Your task to perform on an android device: turn off javascript in the chrome app Image 0: 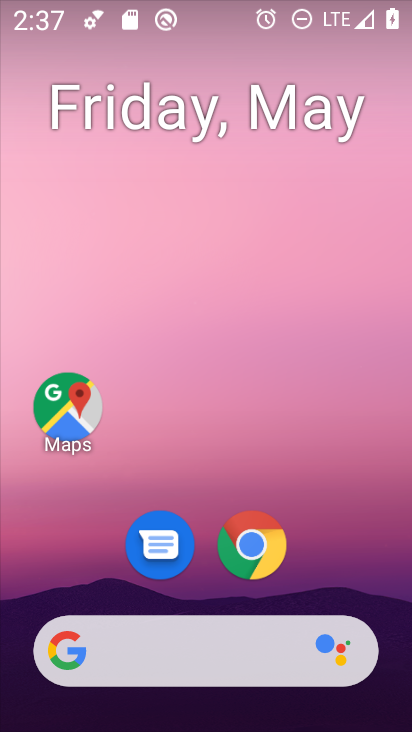
Step 0: drag from (362, 564) to (304, 277)
Your task to perform on an android device: turn off javascript in the chrome app Image 1: 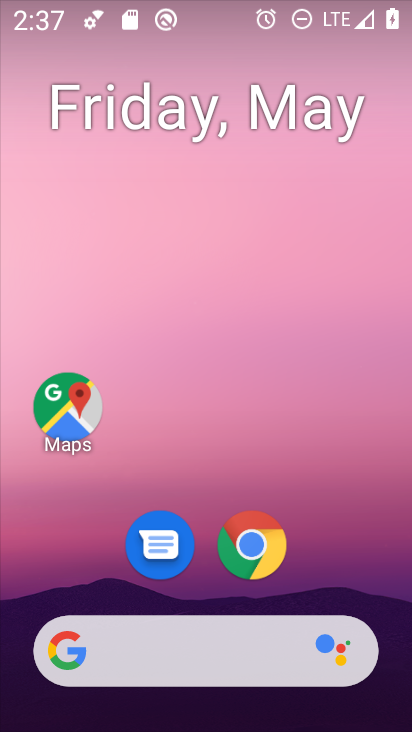
Step 1: click (246, 545)
Your task to perform on an android device: turn off javascript in the chrome app Image 2: 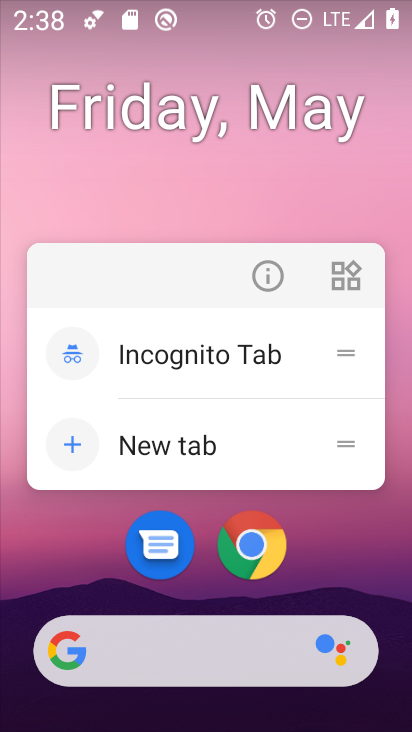
Step 2: click (245, 539)
Your task to perform on an android device: turn off javascript in the chrome app Image 3: 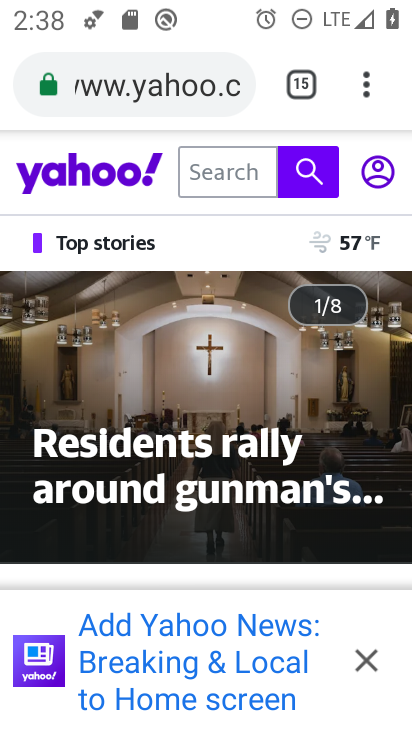
Step 3: click (383, 71)
Your task to perform on an android device: turn off javascript in the chrome app Image 4: 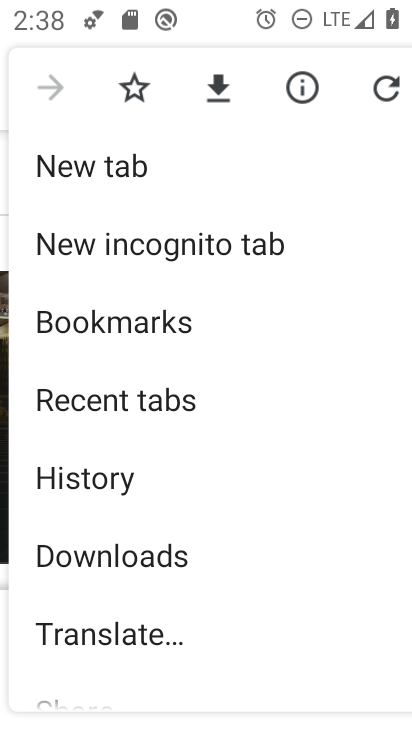
Step 4: drag from (239, 594) to (204, 240)
Your task to perform on an android device: turn off javascript in the chrome app Image 5: 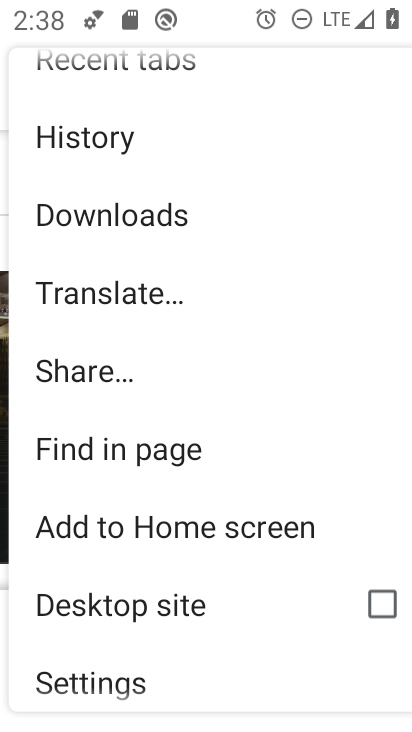
Step 5: click (137, 672)
Your task to perform on an android device: turn off javascript in the chrome app Image 6: 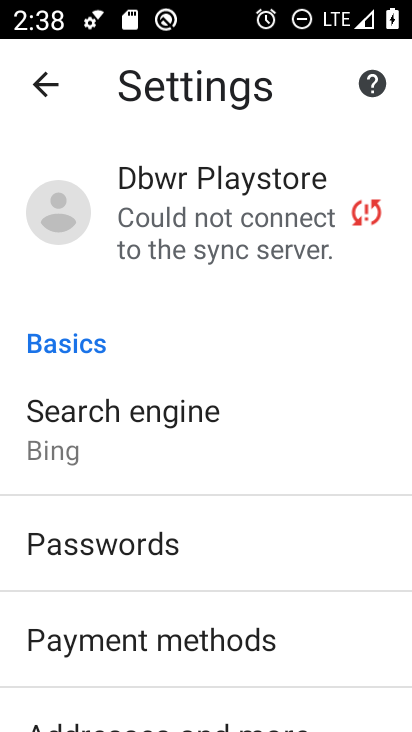
Step 6: drag from (249, 579) to (217, 178)
Your task to perform on an android device: turn off javascript in the chrome app Image 7: 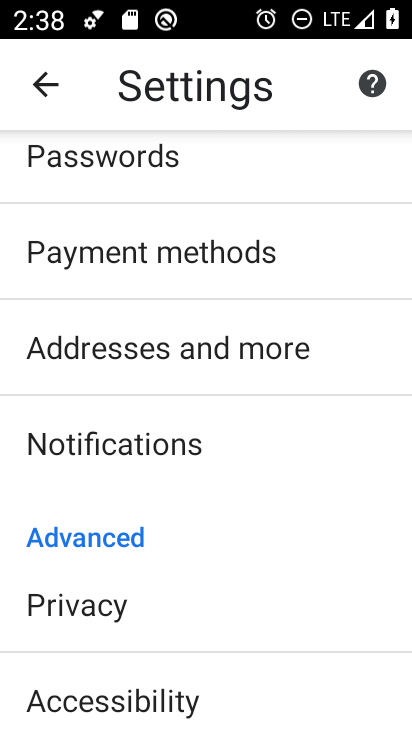
Step 7: drag from (162, 630) to (119, 254)
Your task to perform on an android device: turn off javascript in the chrome app Image 8: 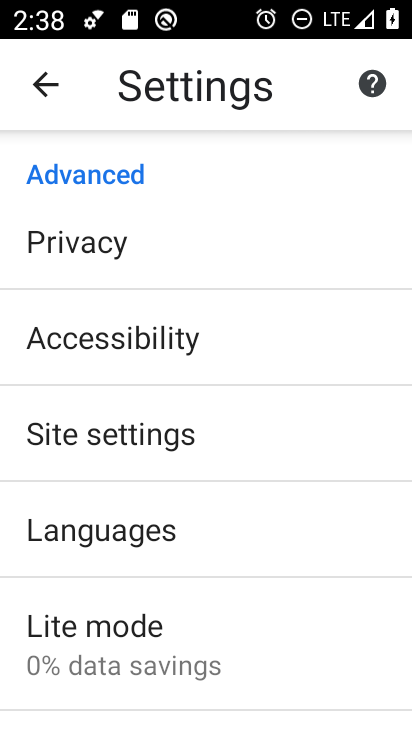
Step 8: drag from (143, 635) to (152, 371)
Your task to perform on an android device: turn off javascript in the chrome app Image 9: 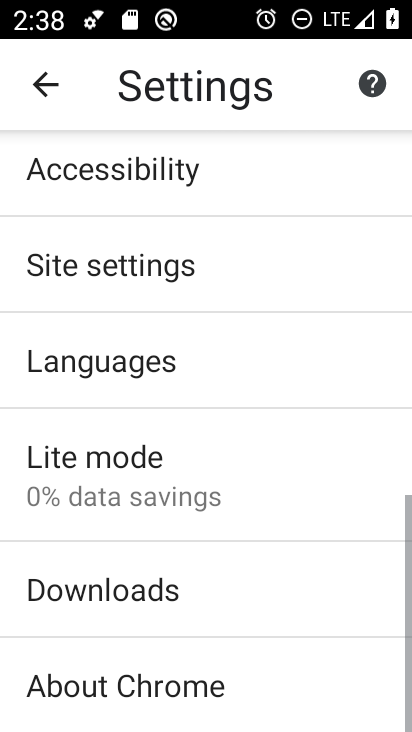
Step 9: click (147, 266)
Your task to perform on an android device: turn off javascript in the chrome app Image 10: 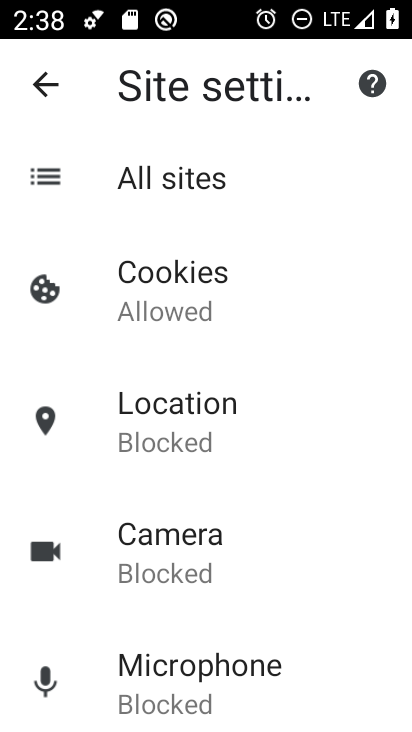
Step 10: drag from (237, 613) to (225, 249)
Your task to perform on an android device: turn off javascript in the chrome app Image 11: 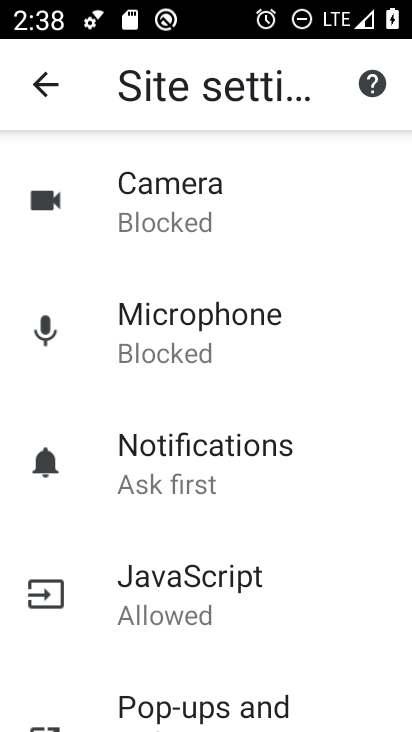
Step 11: click (170, 595)
Your task to perform on an android device: turn off javascript in the chrome app Image 12: 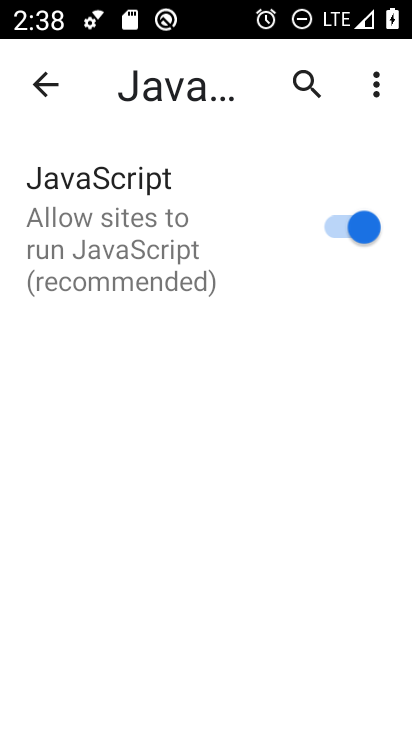
Step 12: click (346, 215)
Your task to perform on an android device: turn off javascript in the chrome app Image 13: 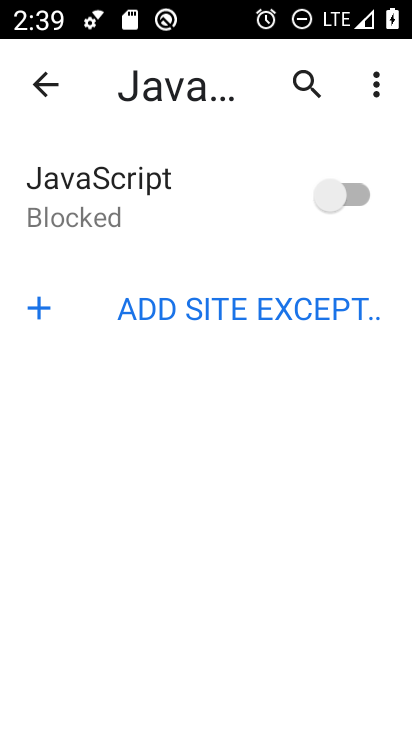
Step 13: task complete